Your task to perform on an android device: Show the shopping cart on bestbuy.com. Add bose soundsport free to the cart on bestbuy.com, then select checkout. Image 0: 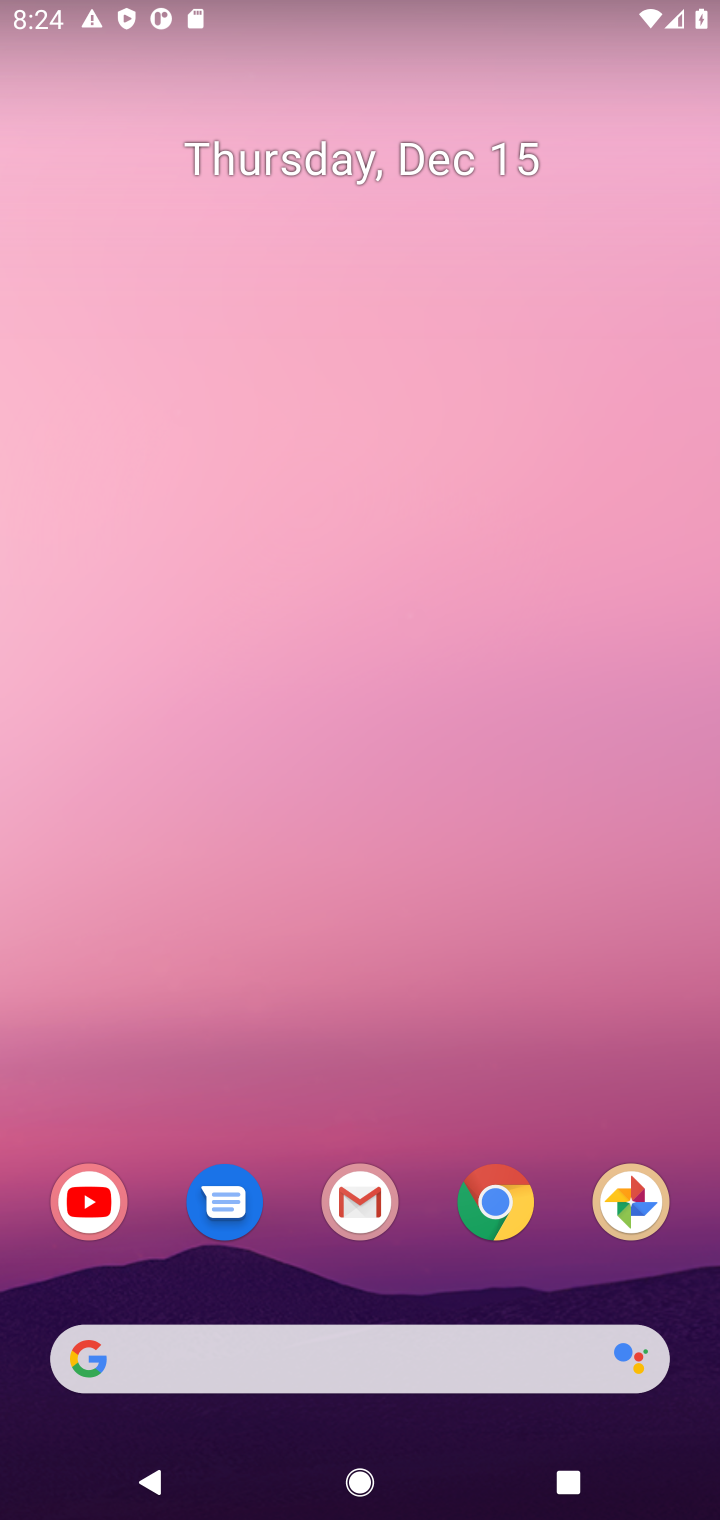
Step 0: click (507, 1209)
Your task to perform on an android device: Show the shopping cart on bestbuy.com. Add bose soundsport free to the cart on bestbuy.com, then select checkout. Image 1: 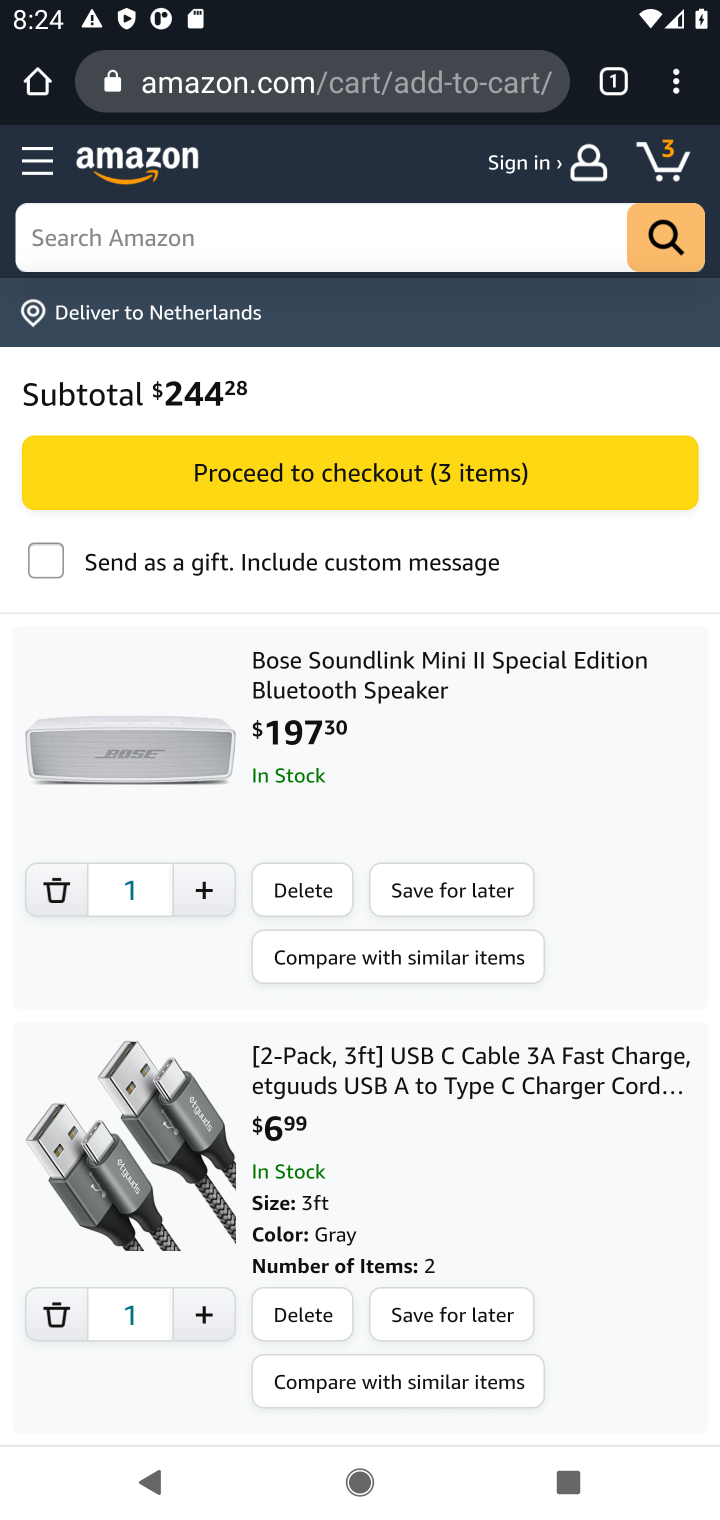
Step 1: click (278, 84)
Your task to perform on an android device: Show the shopping cart on bestbuy.com. Add bose soundsport free to the cart on bestbuy.com, then select checkout. Image 2: 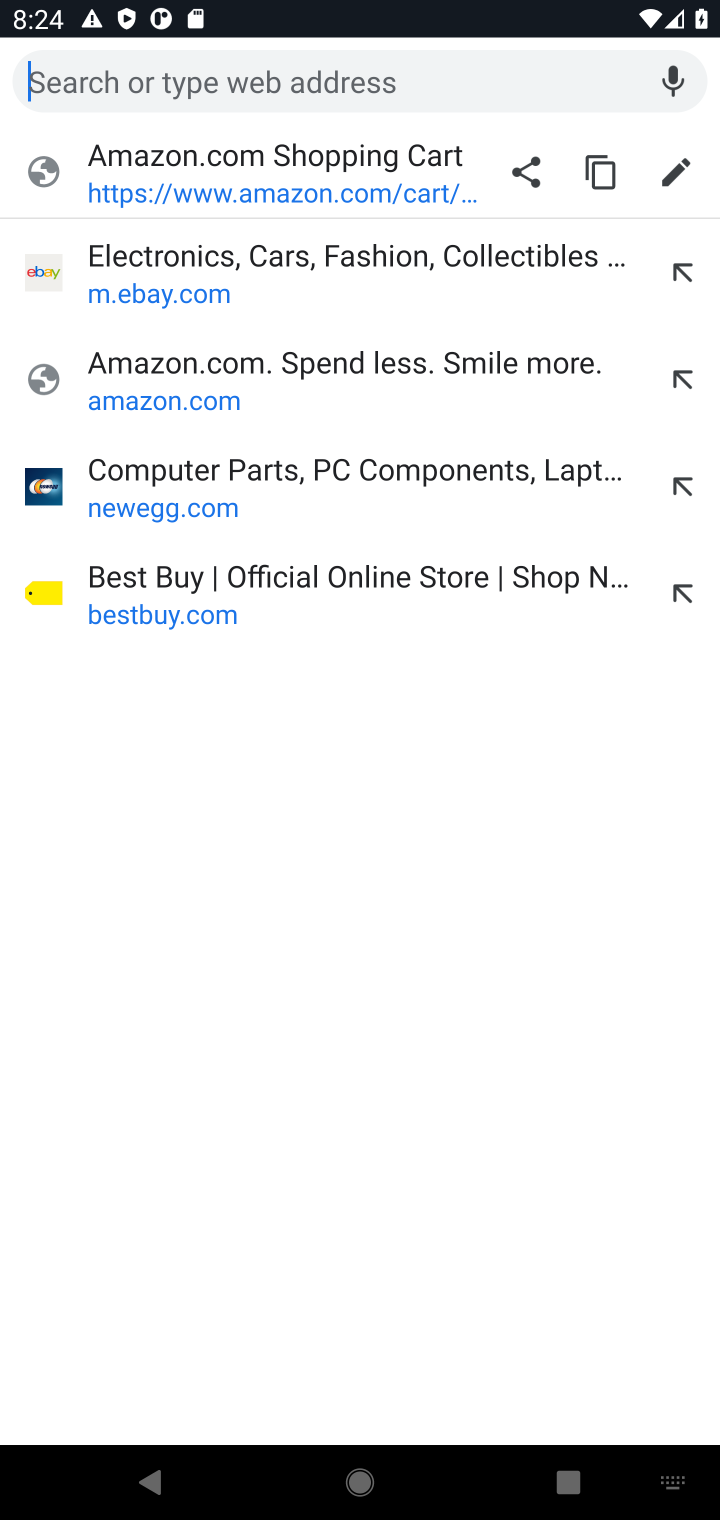
Step 2: click (120, 620)
Your task to perform on an android device: Show the shopping cart on bestbuy.com. Add bose soundsport free to the cart on bestbuy.com, then select checkout. Image 3: 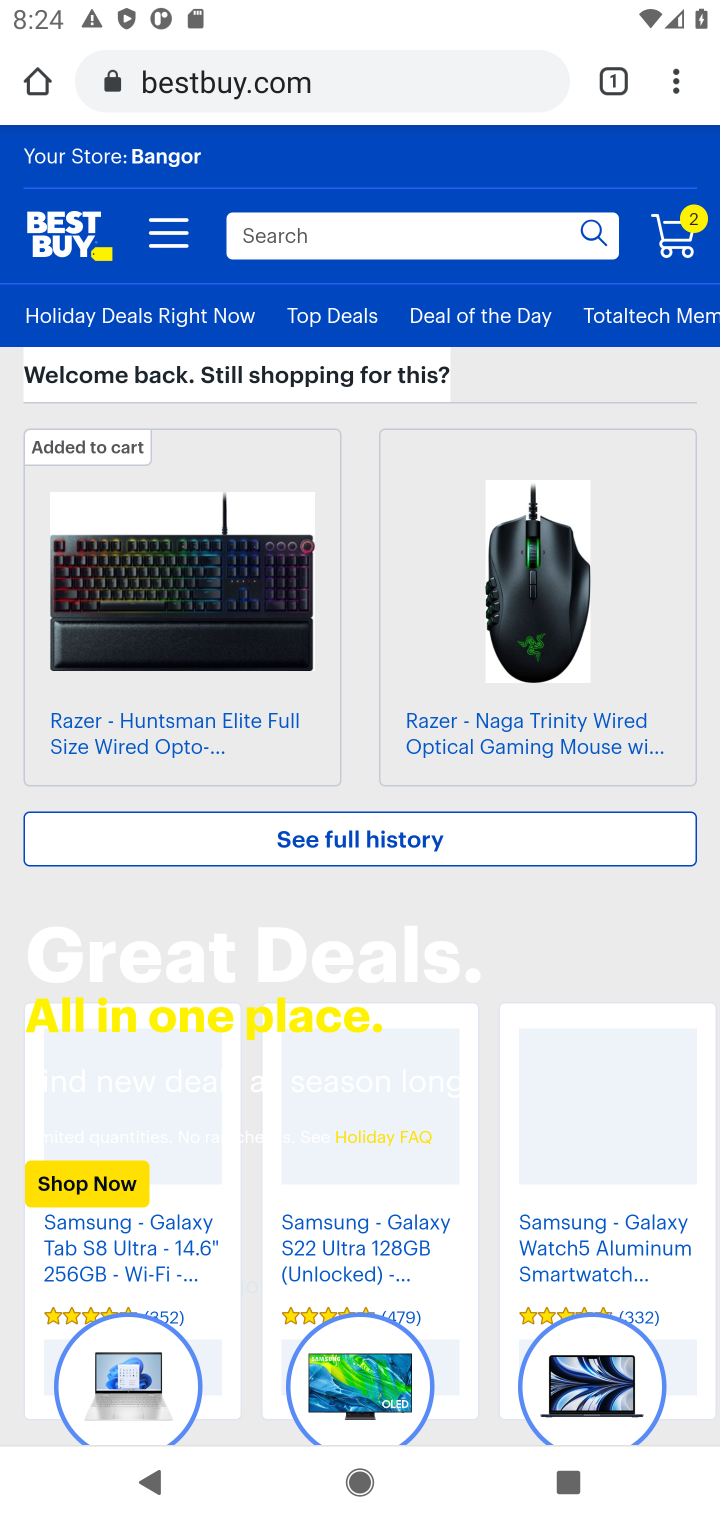
Step 3: click (700, 251)
Your task to perform on an android device: Show the shopping cart on bestbuy.com. Add bose soundsport free to the cart on bestbuy.com, then select checkout. Image 4: 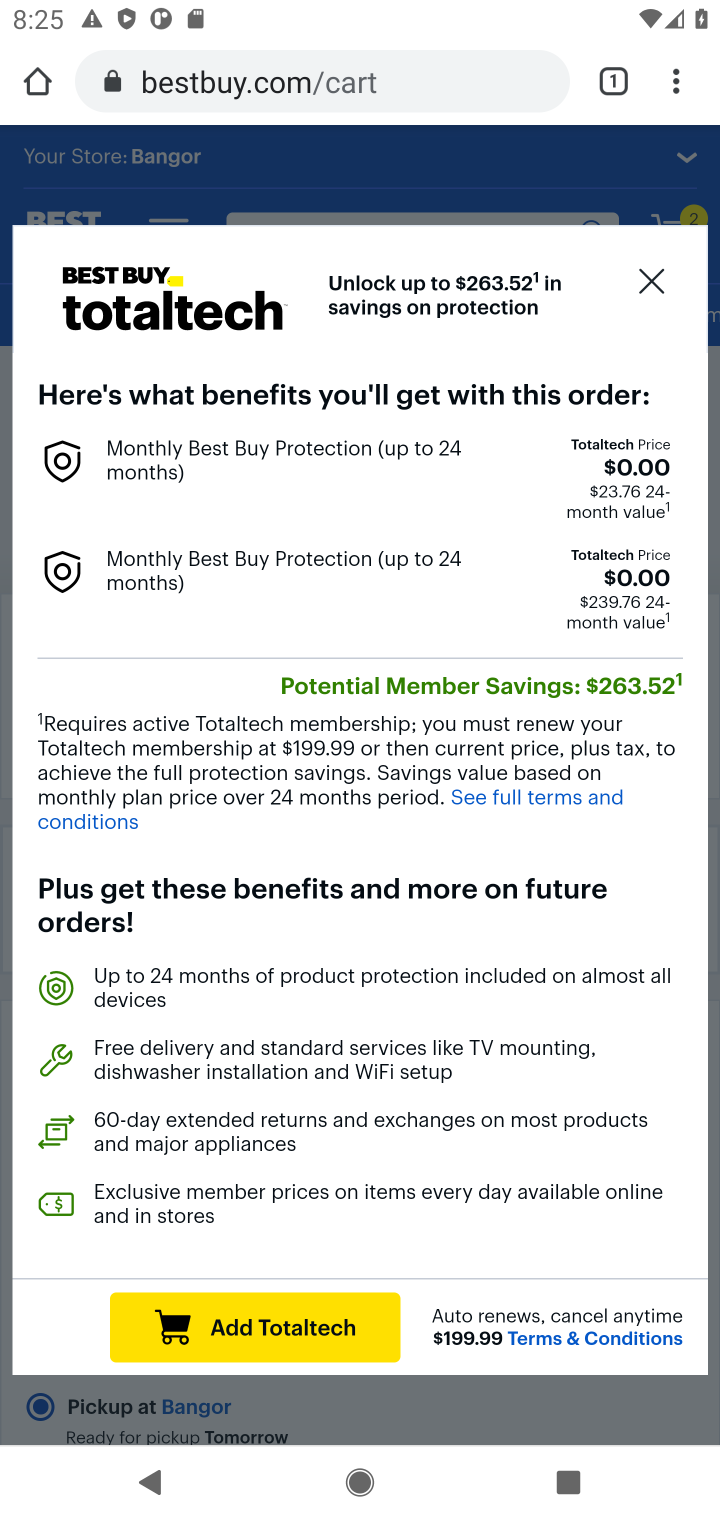
Step 4: click (657, 282)
Your task to perform on an android device: Show the shopping cart on bestbuy.com. Add bose soundsport free to the cart on bestbuy.com, then select checkout. Image 5: 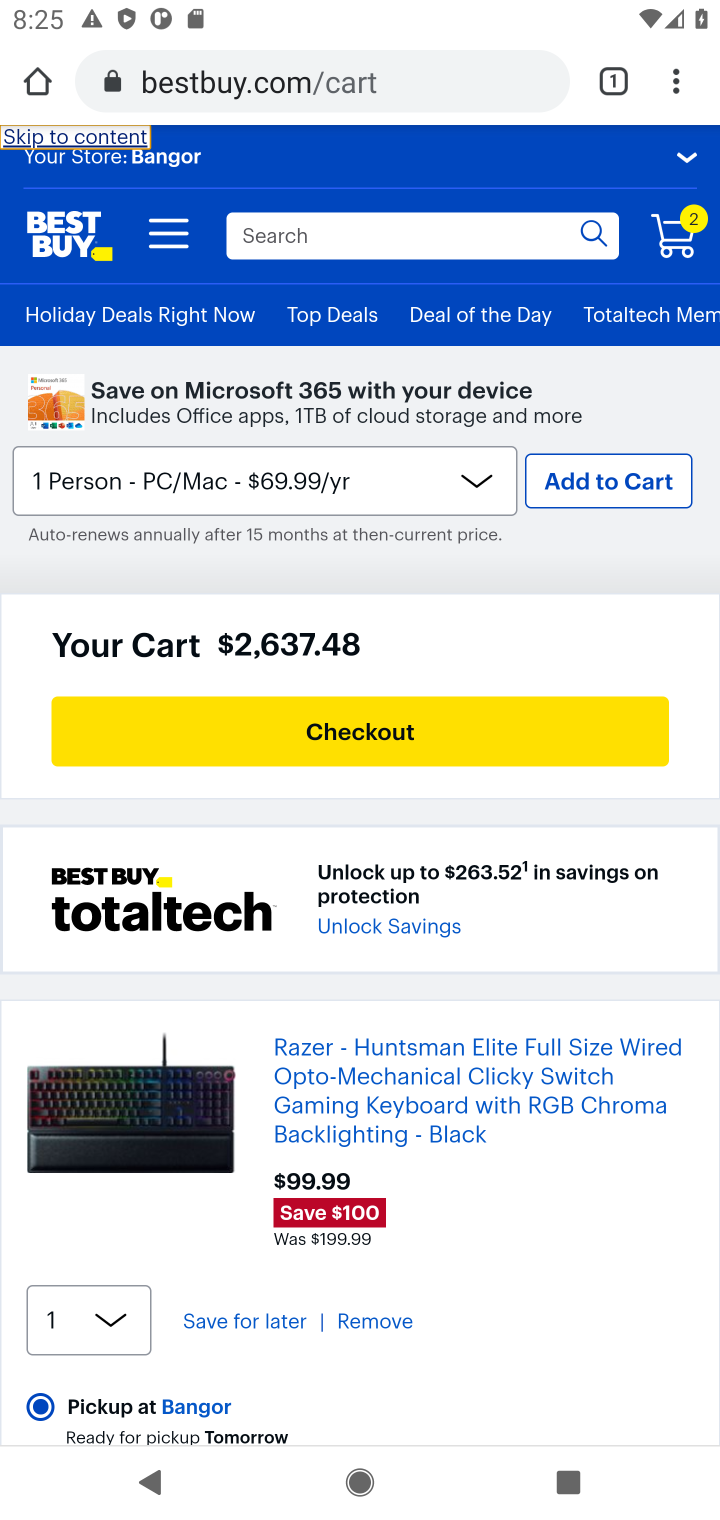
Step 5: click (353, 246)
Your task to perform on an android device: Show the shopping cart on bestbuy.com. Add bose soundsport free to the cart on bestbuy.com, then select checkout. Image 6: 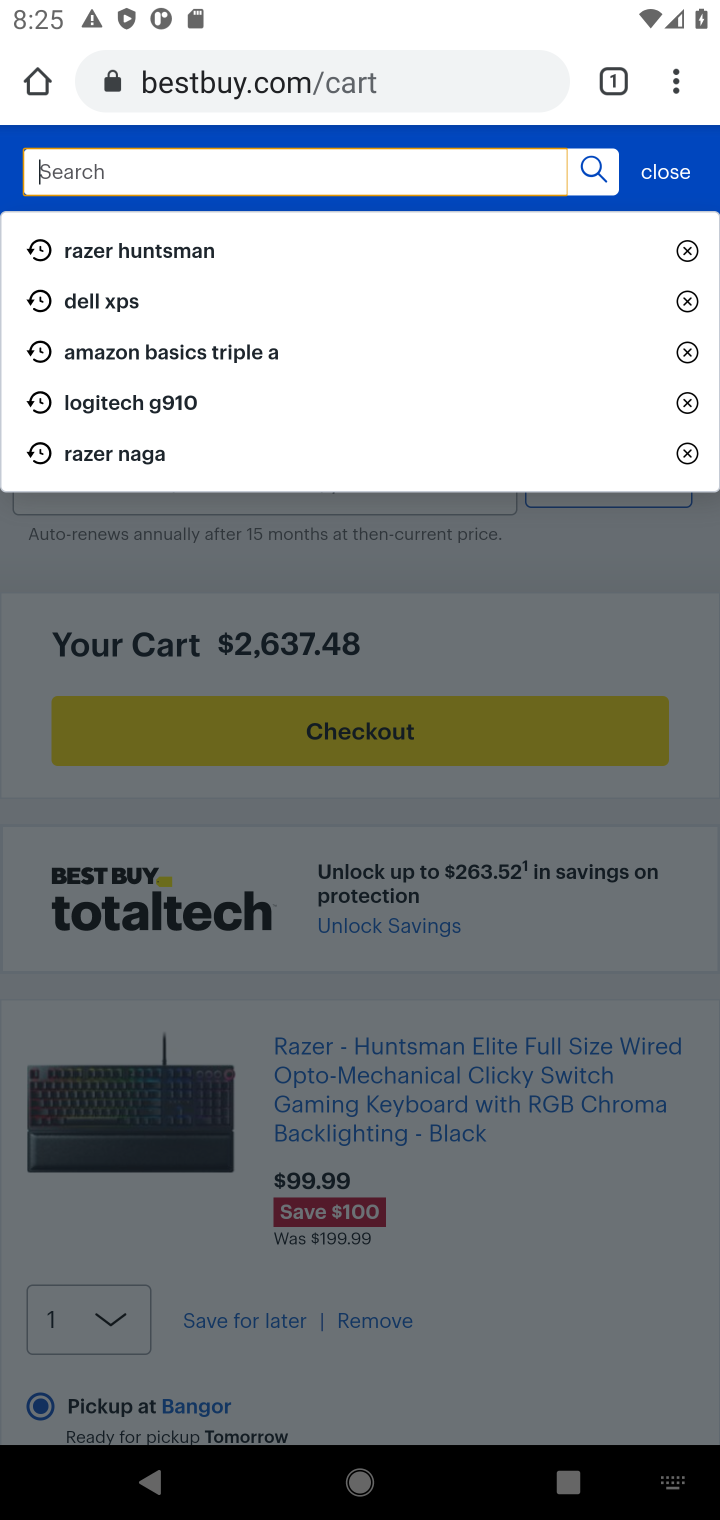
Step 6: type " bose soundsport free"
Your task to perform on an android device: Show the shopping cart on bestbuy.com. Add bose soundsport free to the cart on bestbuy.com, then select checkout. Image 7: 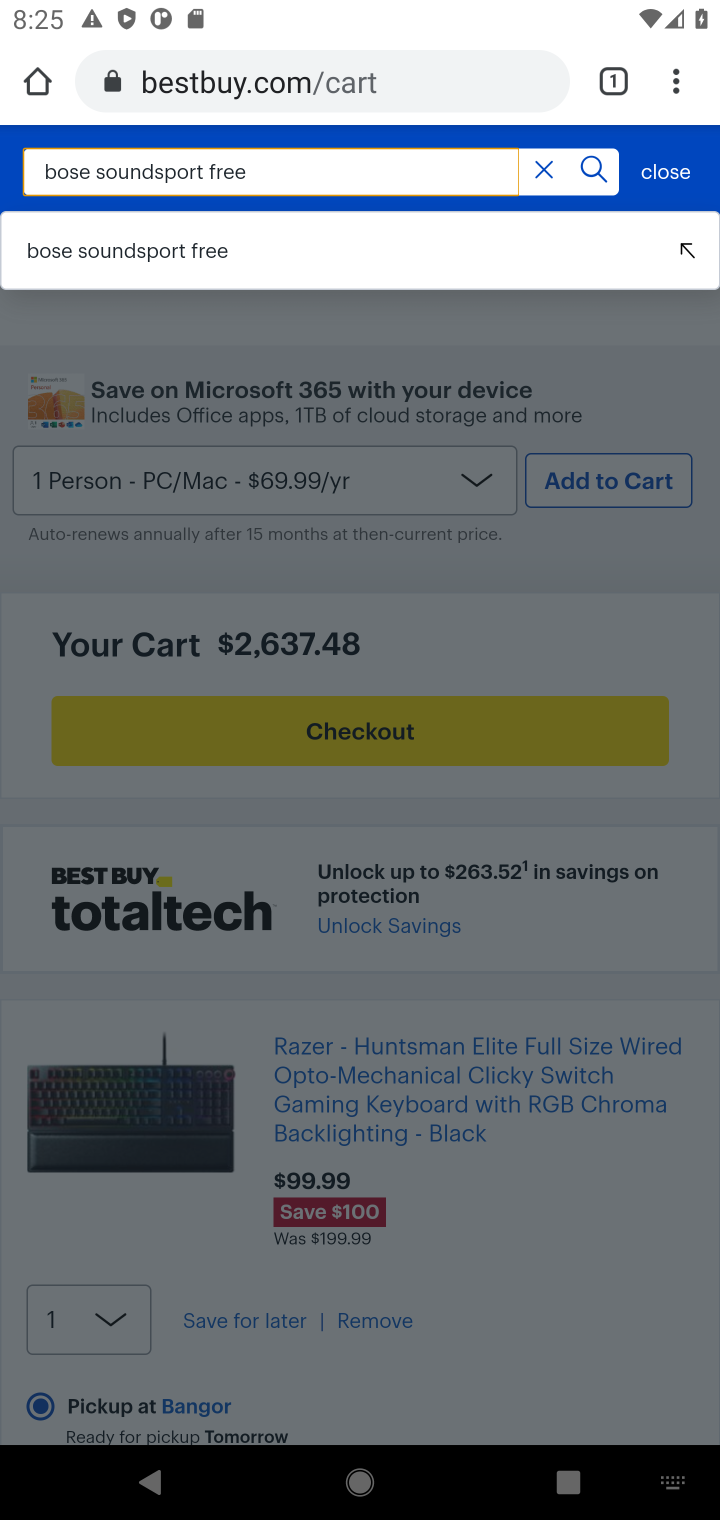
Step 7: click (179, 257)
Your task to perform on an android device: Show the shopping cart on bestbuy.com. Add bose soundsport free to the cart on bestbuy.com, then select checkout. Image 8: 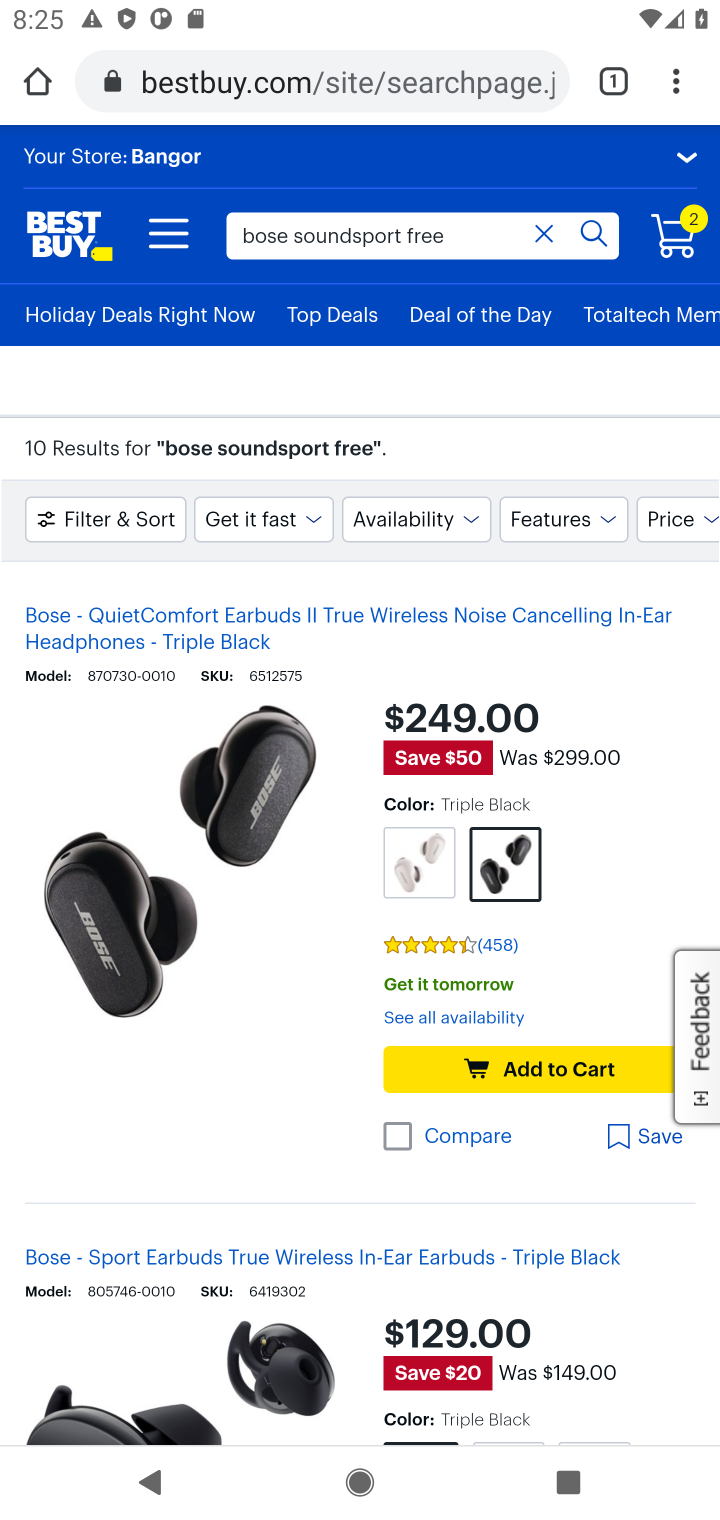
Step 8: drag from (240, 952) to (239, 360)
Your task to perform on an android device: Show the shopping cart on bestbuy.com. Add bose soundsport free to the cart on bestbuy.com, then select checkout. Image 9: 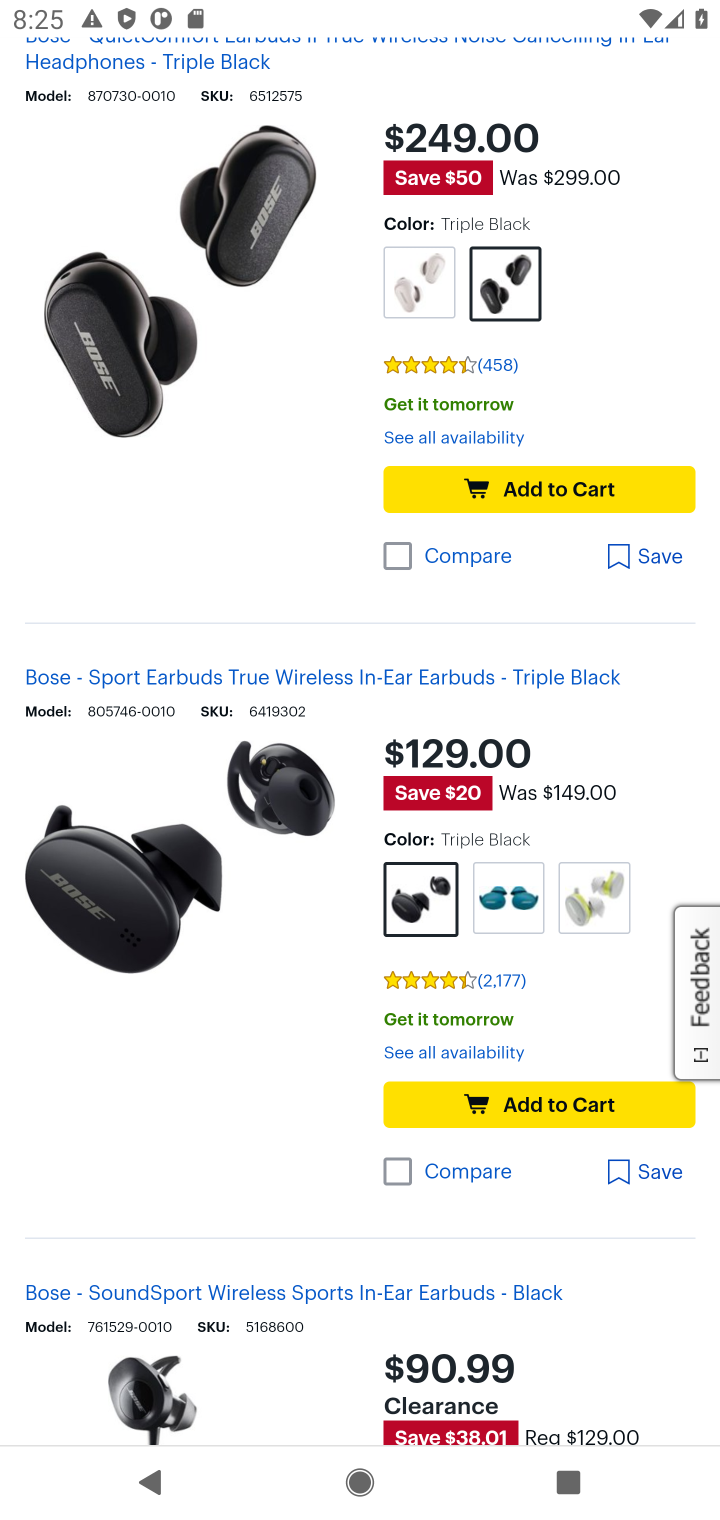
Step 9: drag from (295, 972) to (284, 504)
Your task to perform on an android device: Show the shopping cart on bestbuy.com. Add bose soundsport free to the cart on bestbuy.com, then select checkout. Image 10: 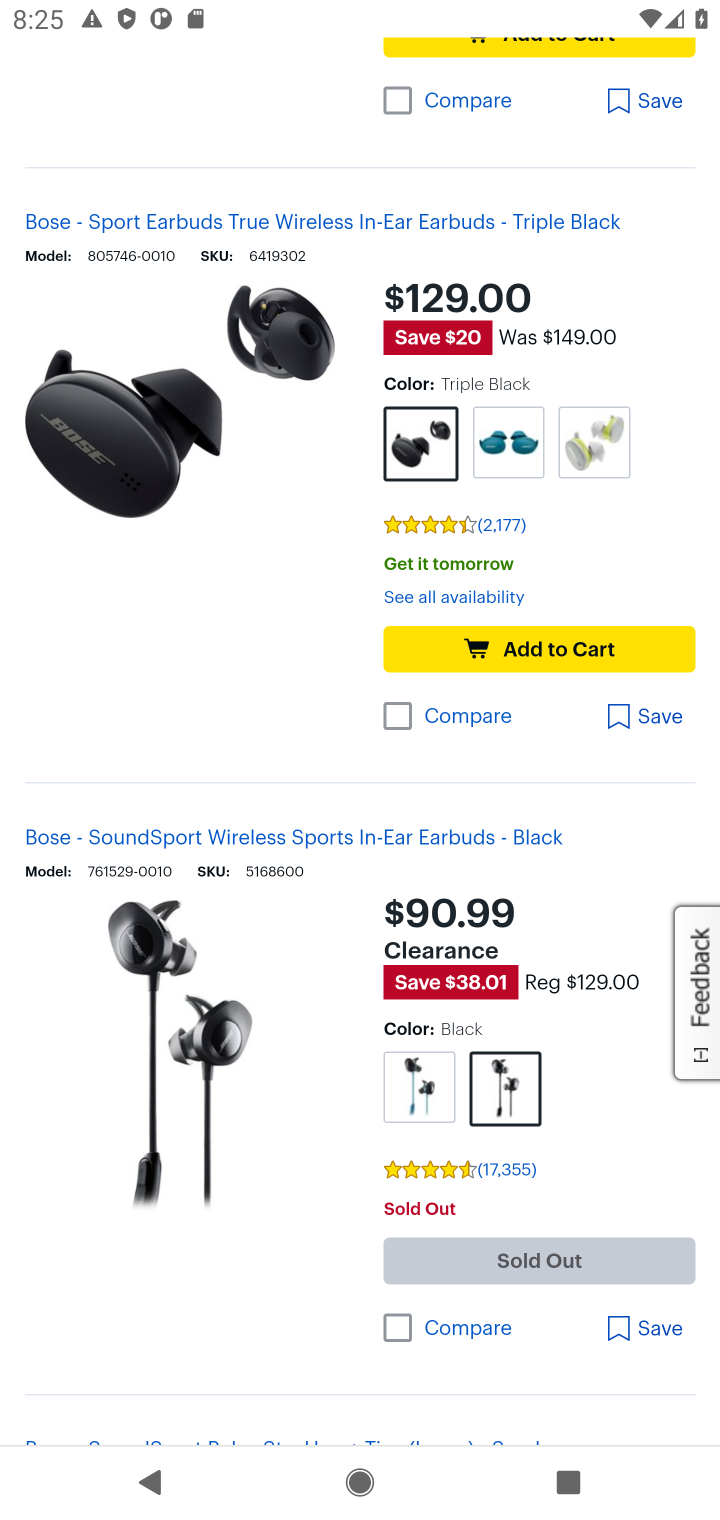
Step 10: drag from (202, 1185) to (216, 585)
Your task to perform on an android device: Show the shopping cart on bestbuy.com. Add bose soundsport free to the cart on bestbuy.com, then select checkout. Image 11: 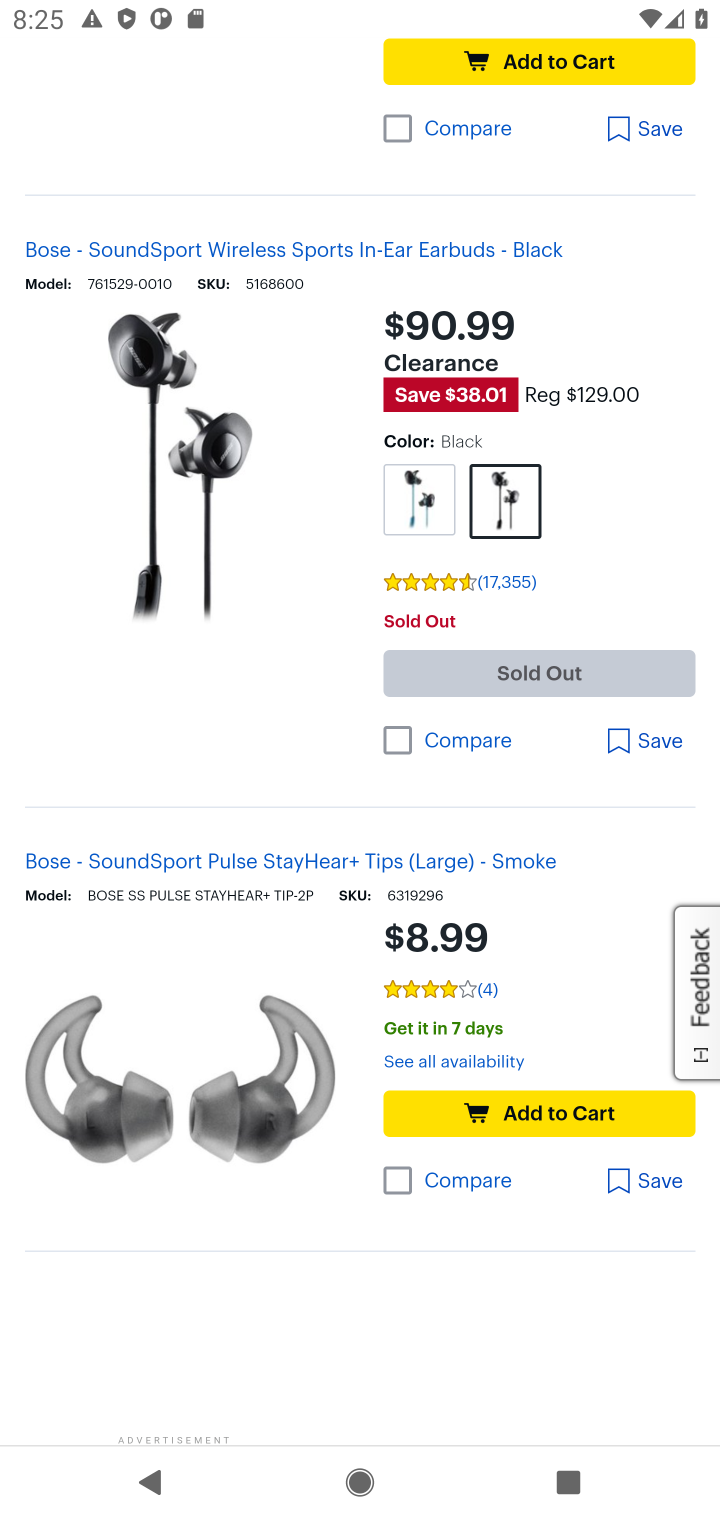
Step 11: drag from (188, 1136) to (182, 620)
Your task to perform on an android device: Show the shopping cart on bestbuy.com. Add bose soundsport free to the cart on bestbuy.com, then select checkout. Image 12: 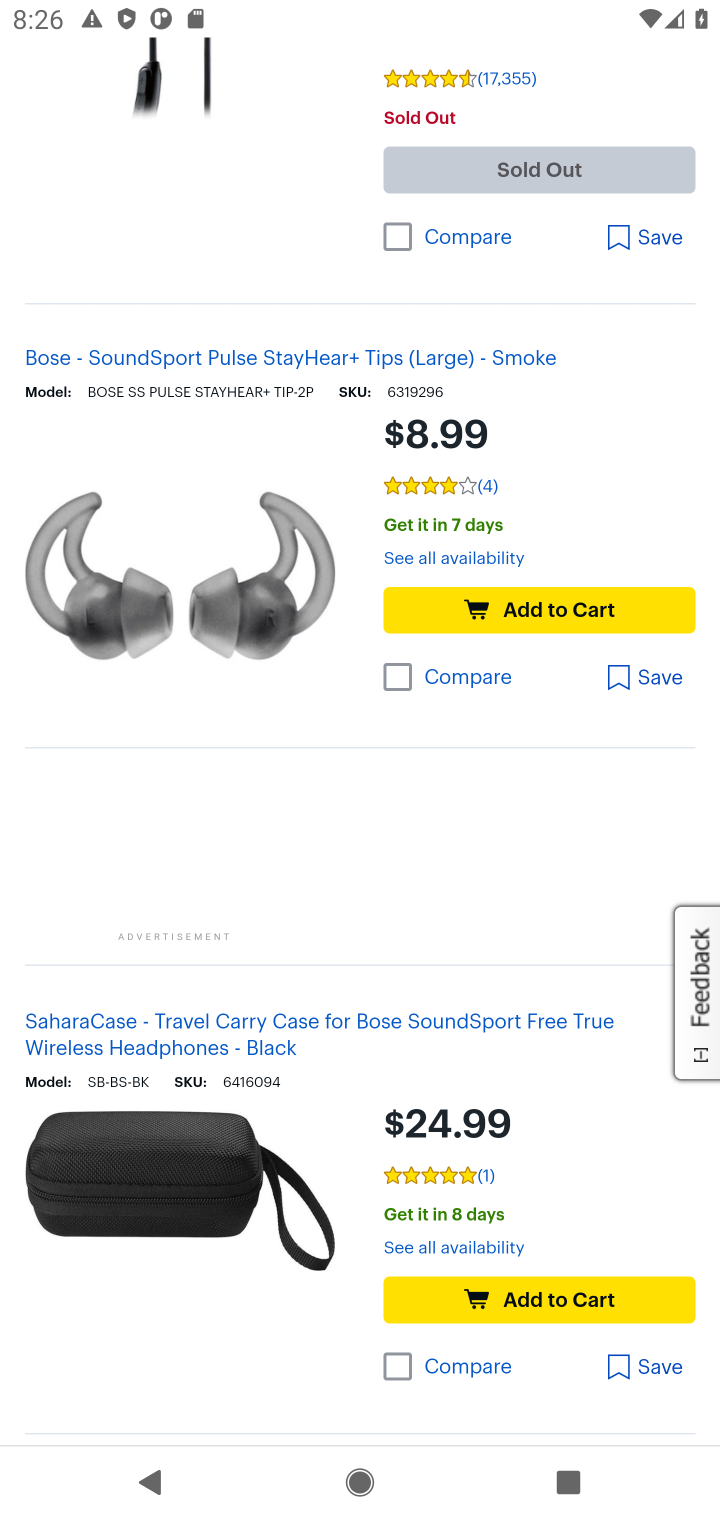
Step 12: click (516, 1294)
Your task to perform on an android device: Show the shopping cart on bestbuy.com. Add bose soundsport free to the cart on bestbuy.com, then select checkout. Image 13: 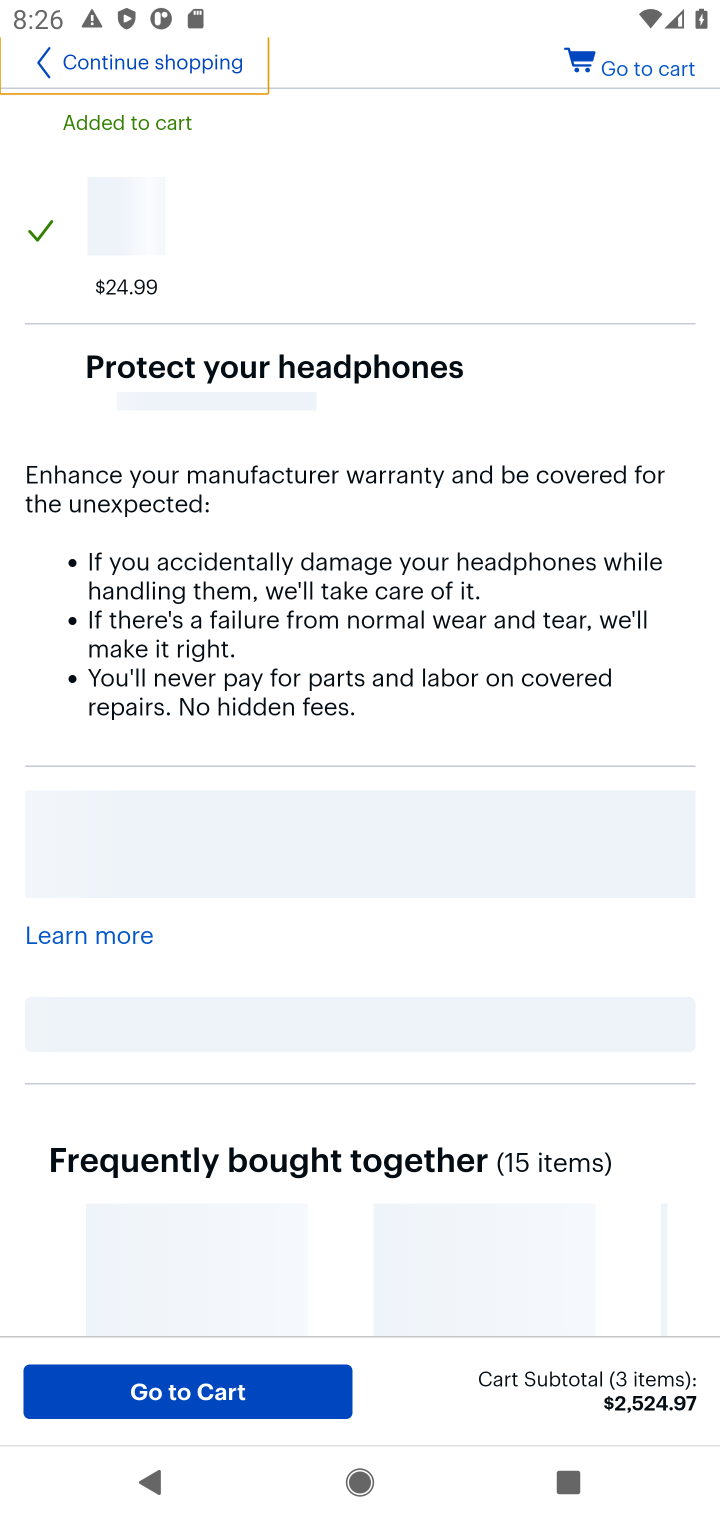
Step 13: click (631, 76)
Your task to perform on an android device: Show the shopping cart on bestbuy.com. Add bose soundsport free to the cart on bestbuy.com, then select checkout. Image 14: 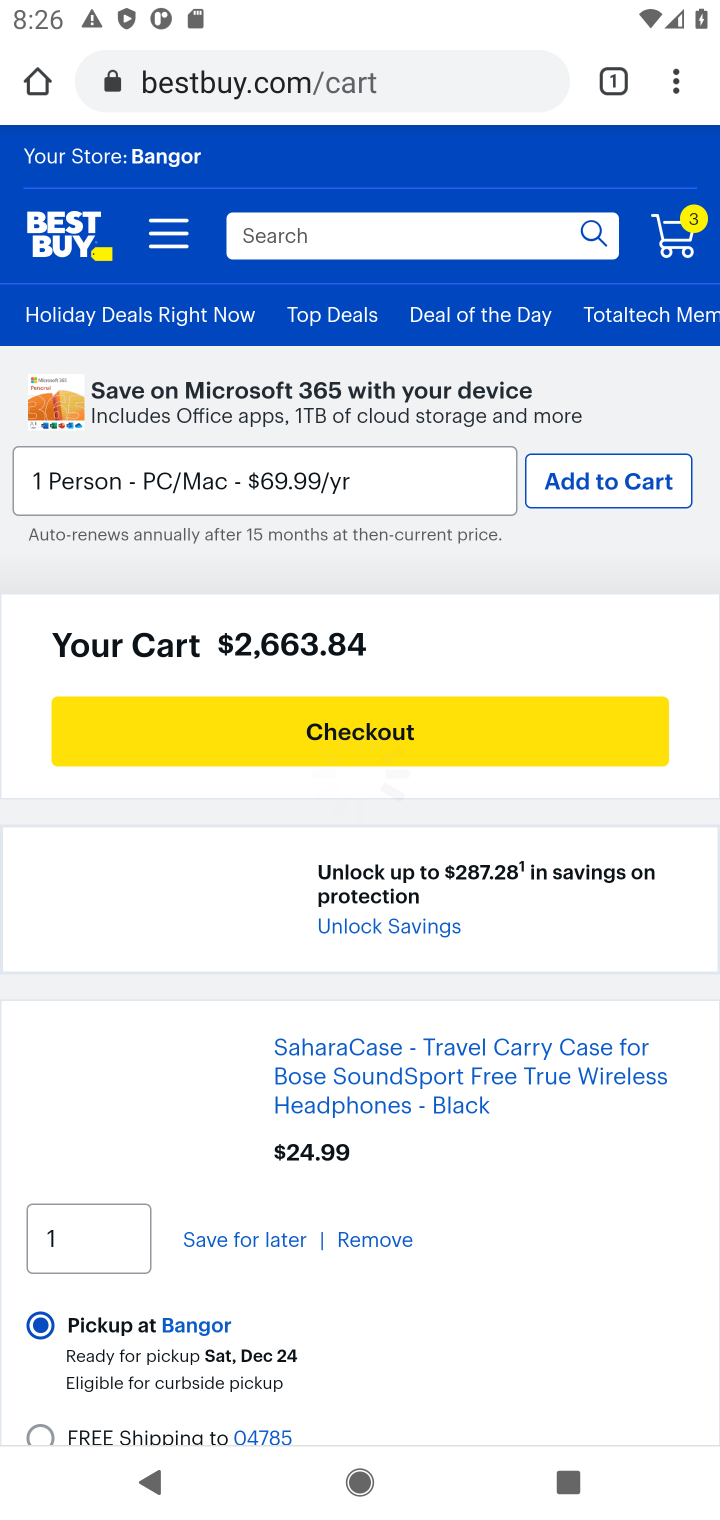
Step 14: click (372, 734)
Your task to perform on an android device: Show the shopping cart on bestbuy.com. Add bose soundsport free to the cart on bestbuy.com, then select checkout. Image 15: 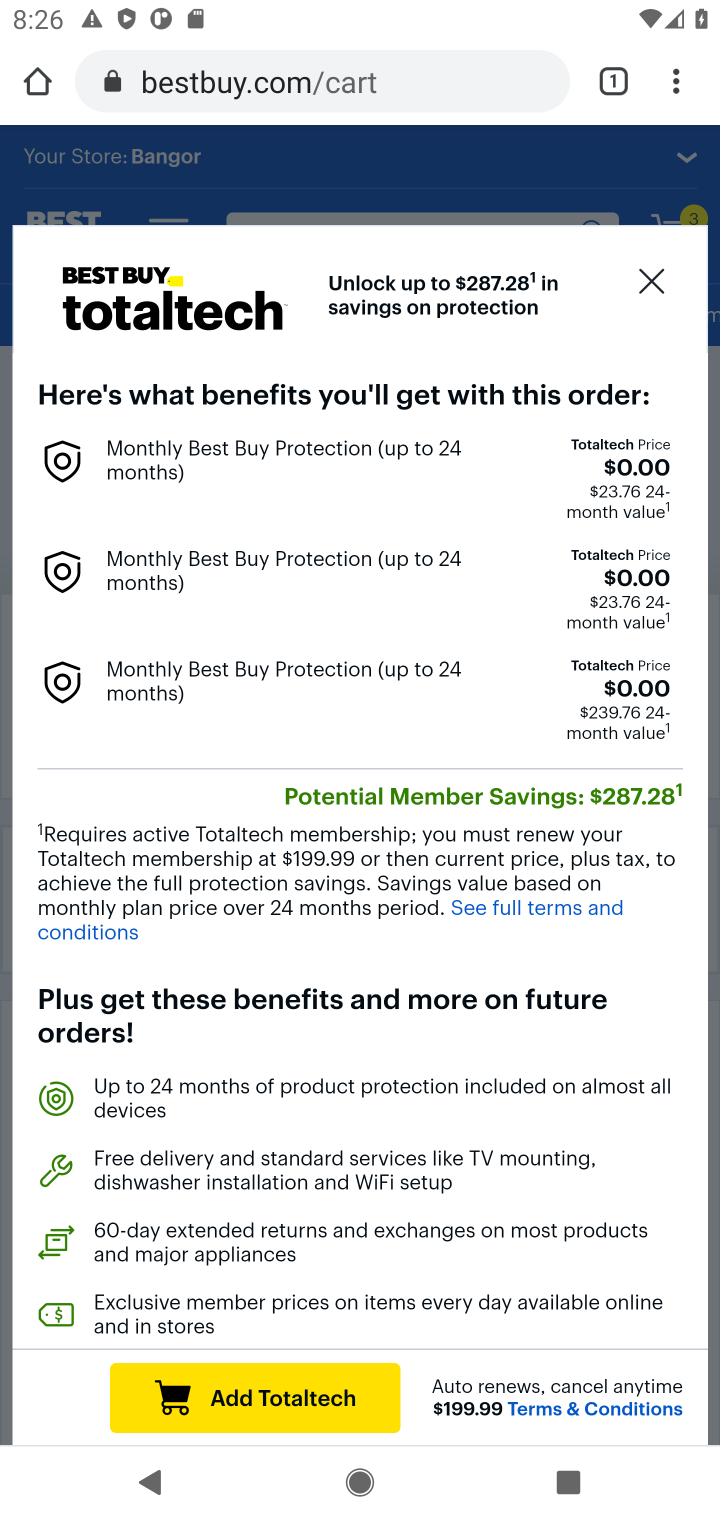
Step 15: click (655, 287)
Your task to perform on an android device: Show the shopping cart on bestbuy.com. Add bose soundsport free to the cart on bestbuy.com, then select checkout. Image 16: 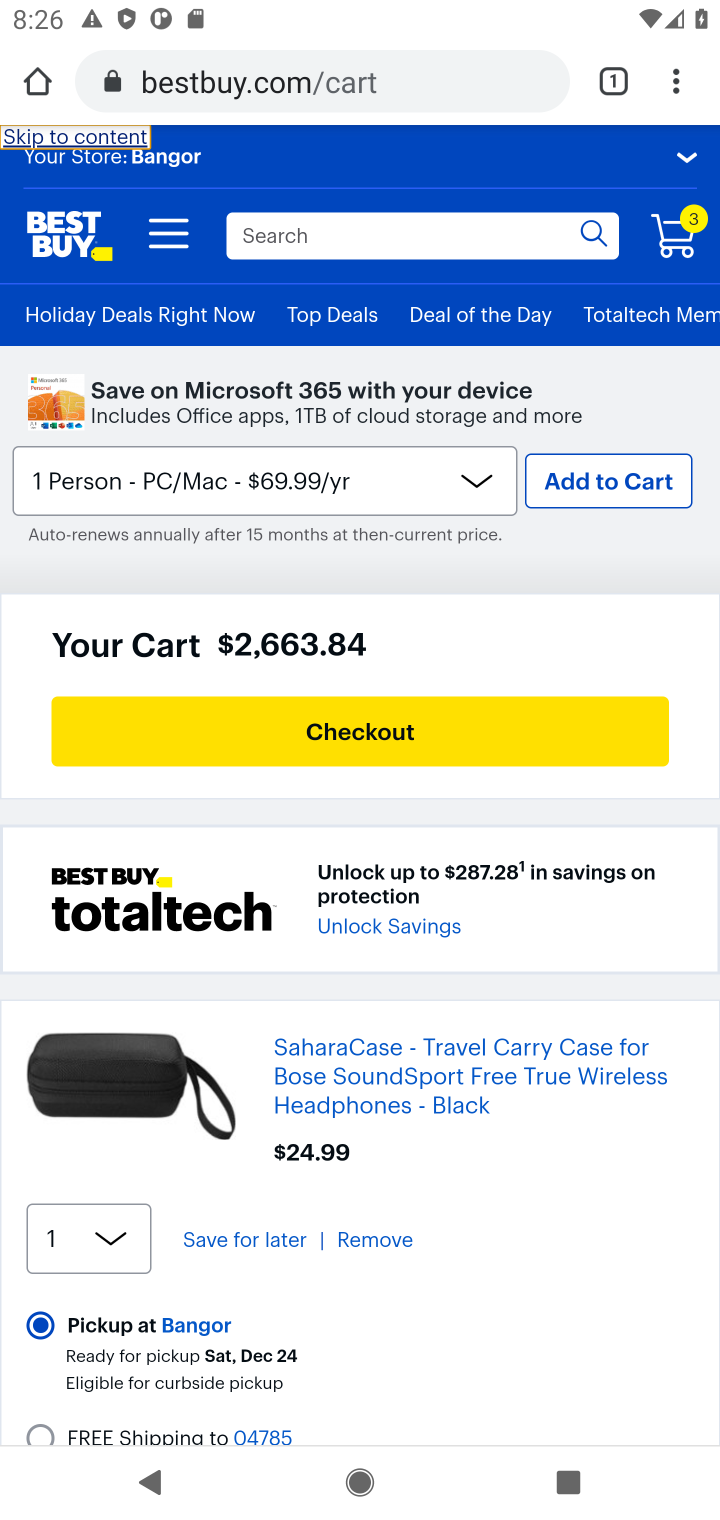
Step 16: click (339, 717)
Your task to perform on an android device: Show the shopping cart on bestbuy.com. Add bose soundsport free to the cart on bestbuy.com, then select checkout. Image 17: 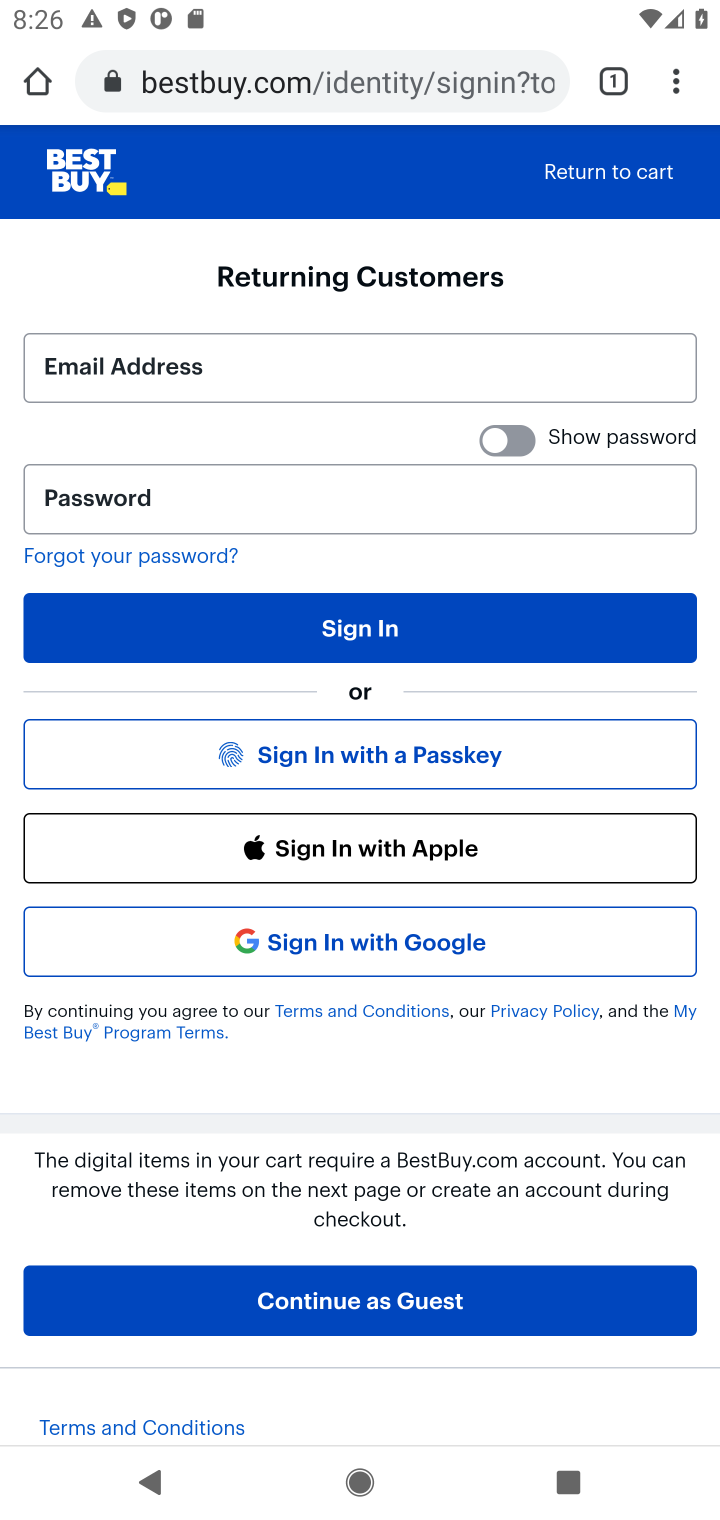
Step 17: task complete